Your task to perform on an android device: Open the map Image 0: 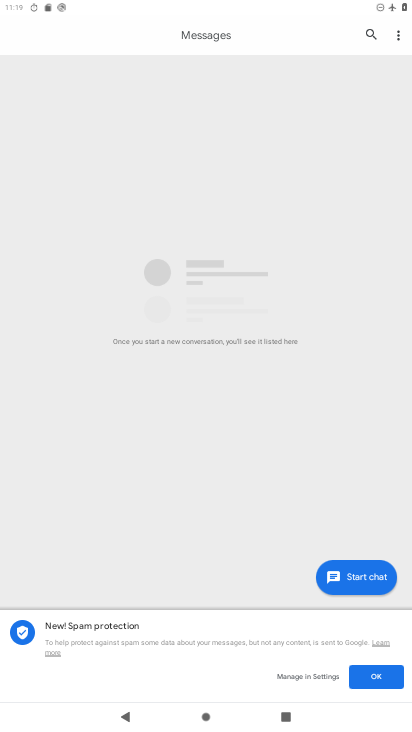
Step 0: press home button
Your task to perform on an android device: Open the map Image 1: 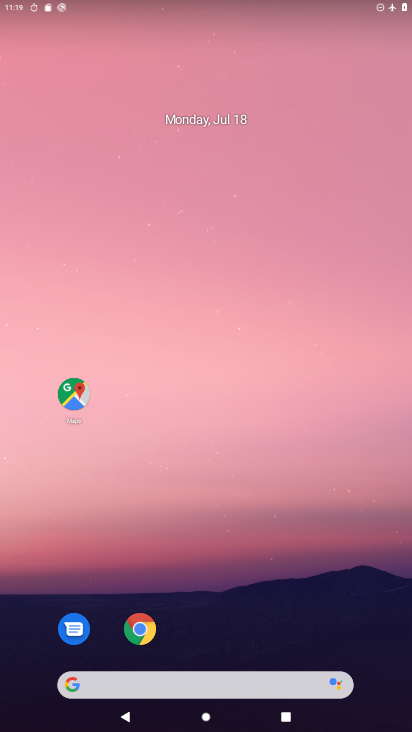
Step 1: drag from (244, 499) to (241, 93)
Your task to perform on an android device: Open the map Image 2: 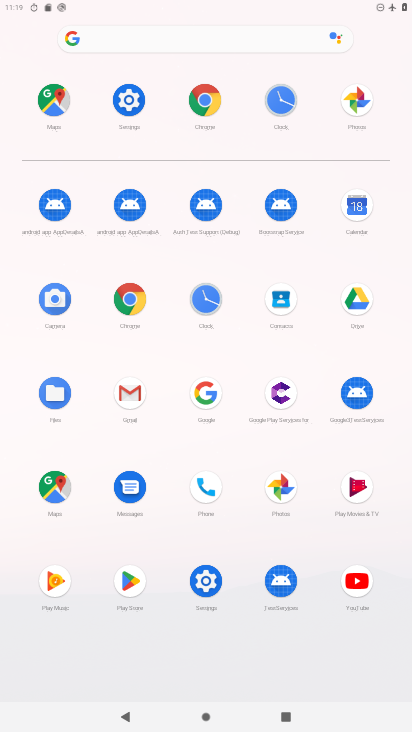
Step 2: click (51, 99)
Your task to perform on an android device: Open the map Image 3: 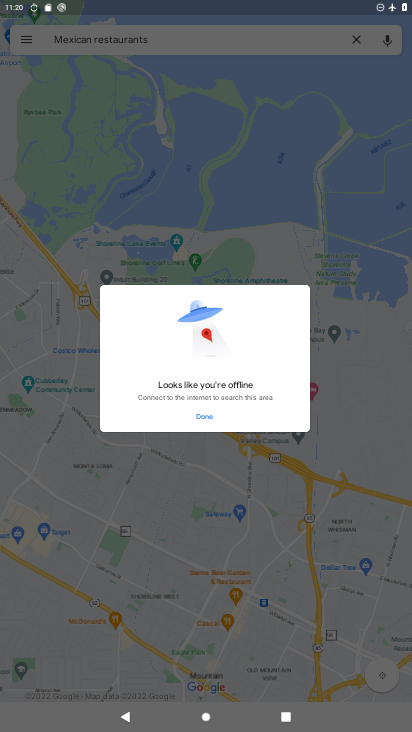
Step 3: task complete